Your task to perform on an android device: open app "YouTube Kids" Image 0: 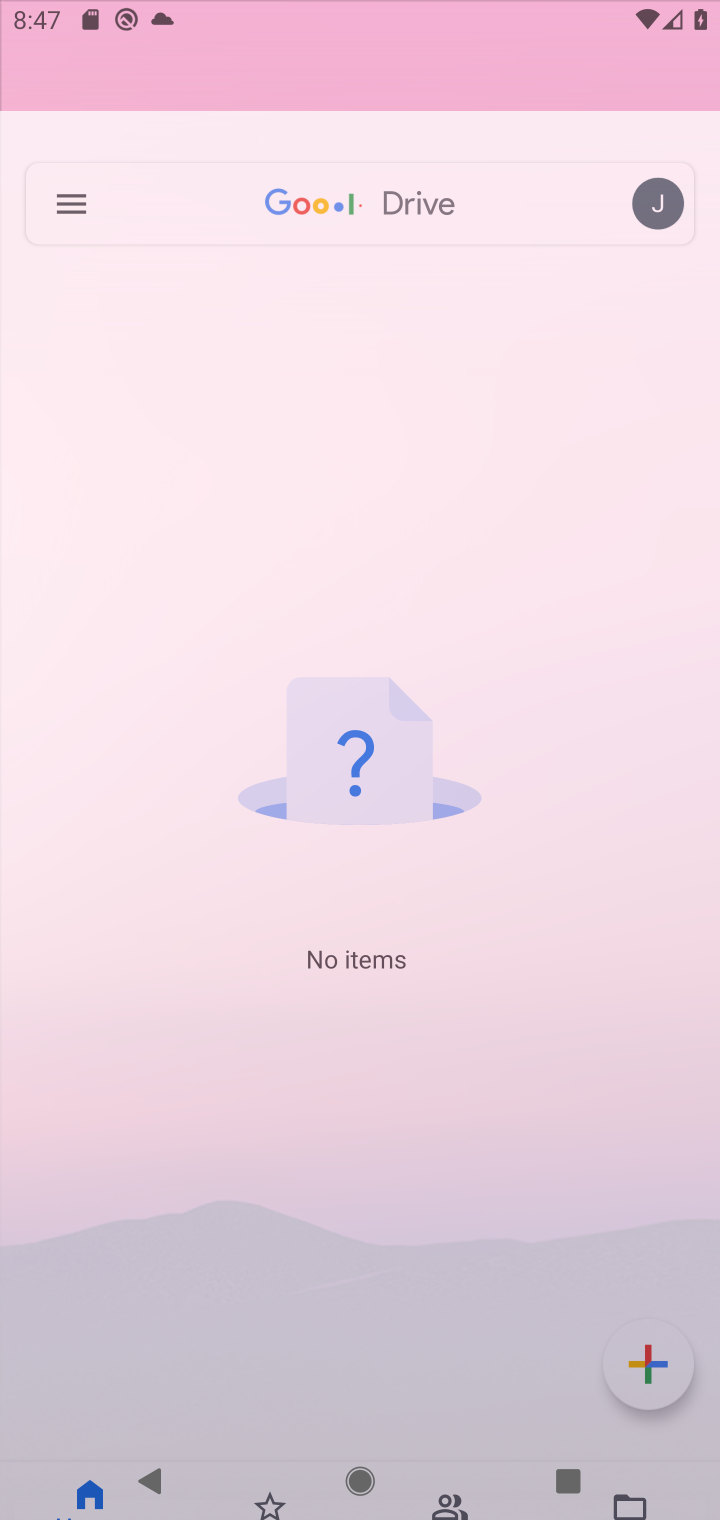
Step 0: click (569, 82)
Your task to perform on an android device: open app "YouTube Kids" Image 1: 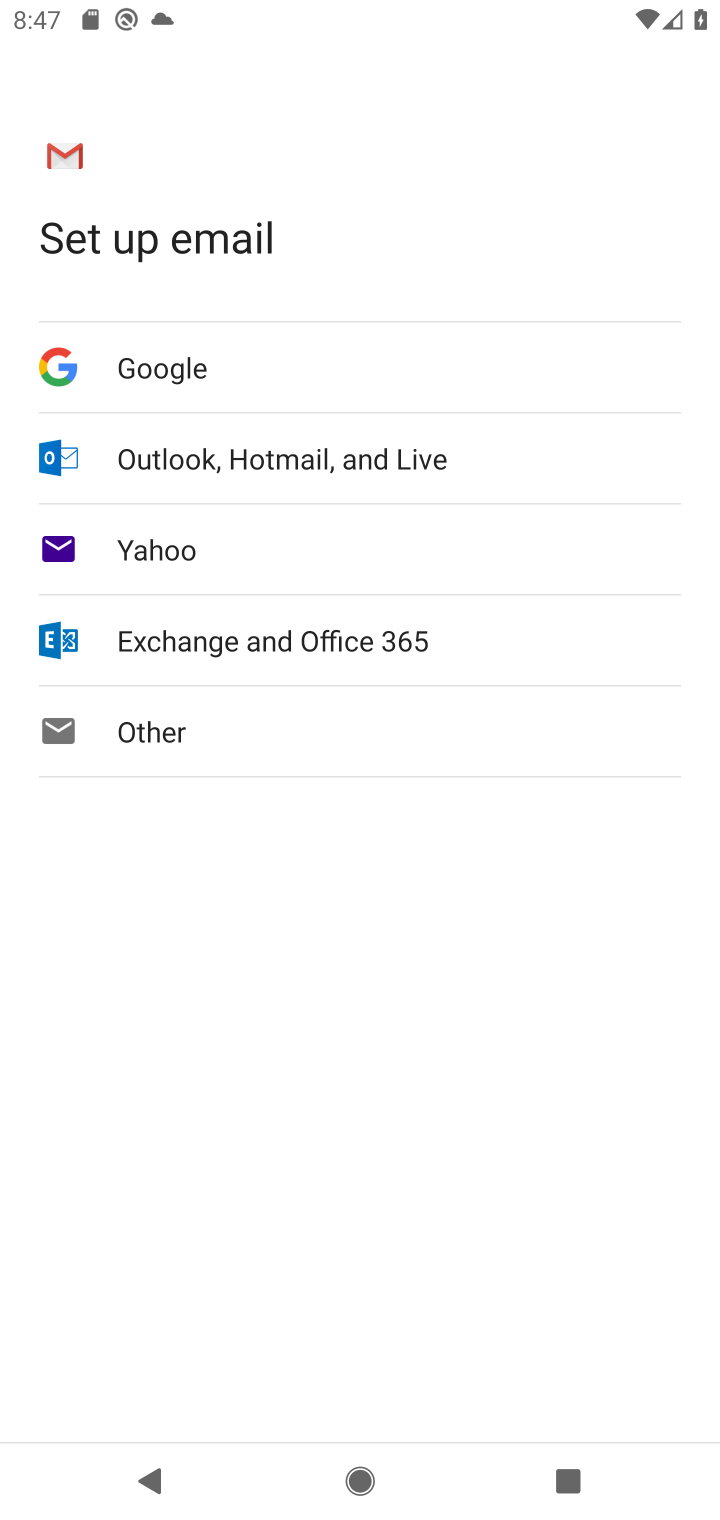
Step 1: press home button
Your task to perform on an android device: open app "YouTube Kids" Image 2: 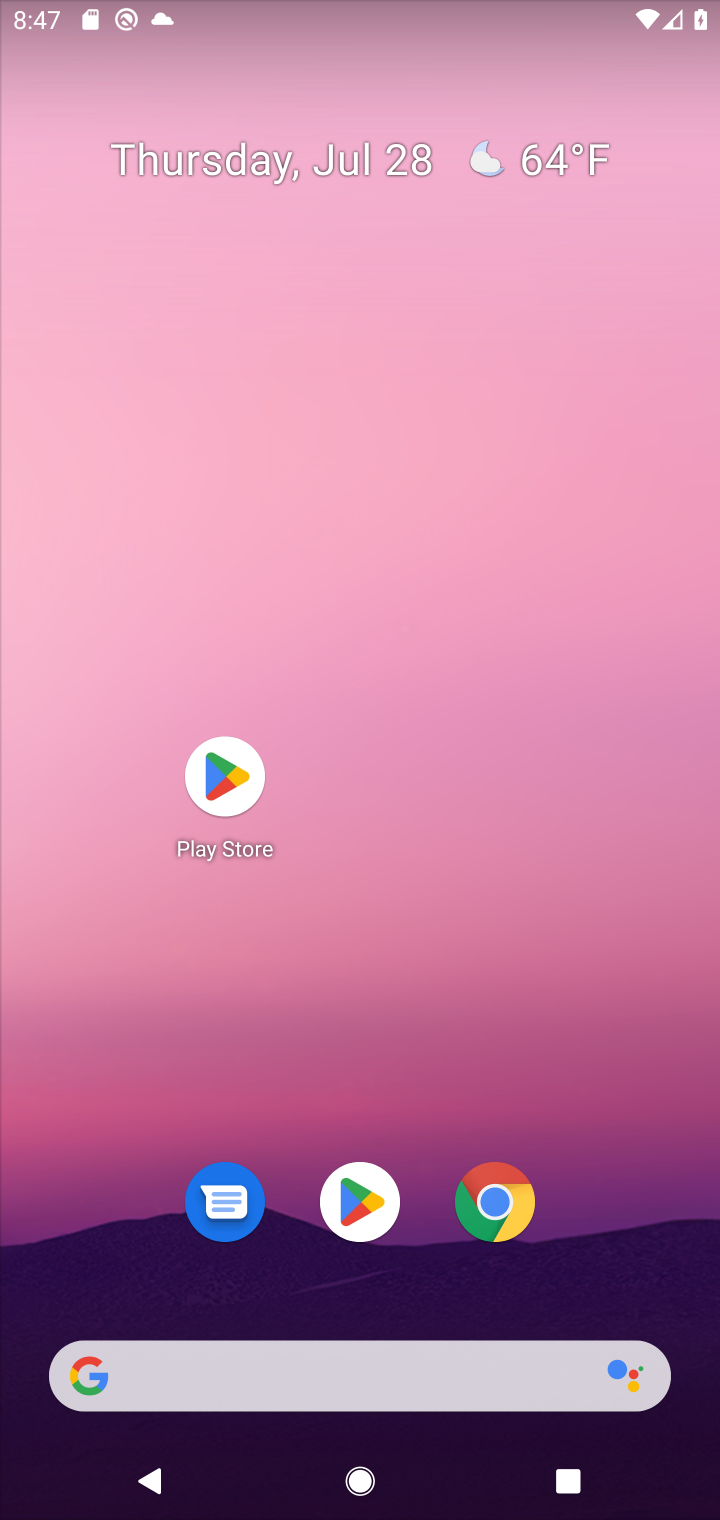
Step 2: click (213, 773)
Your task to perform on an android device: open app "YouTube Kids" Image 3: 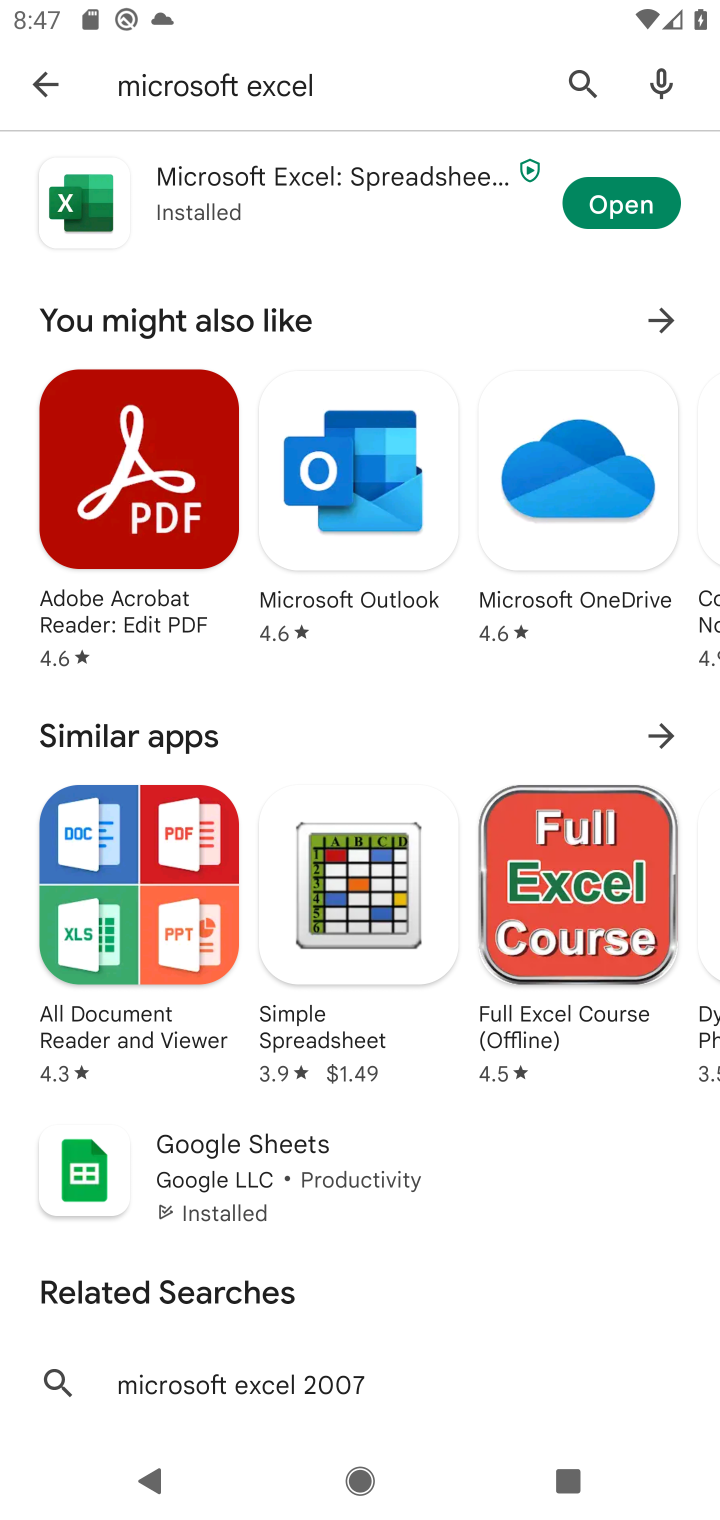
Step 3: click (583, 86)
Your task to perform on an android device: open app "YouTube Kids" Image 4: 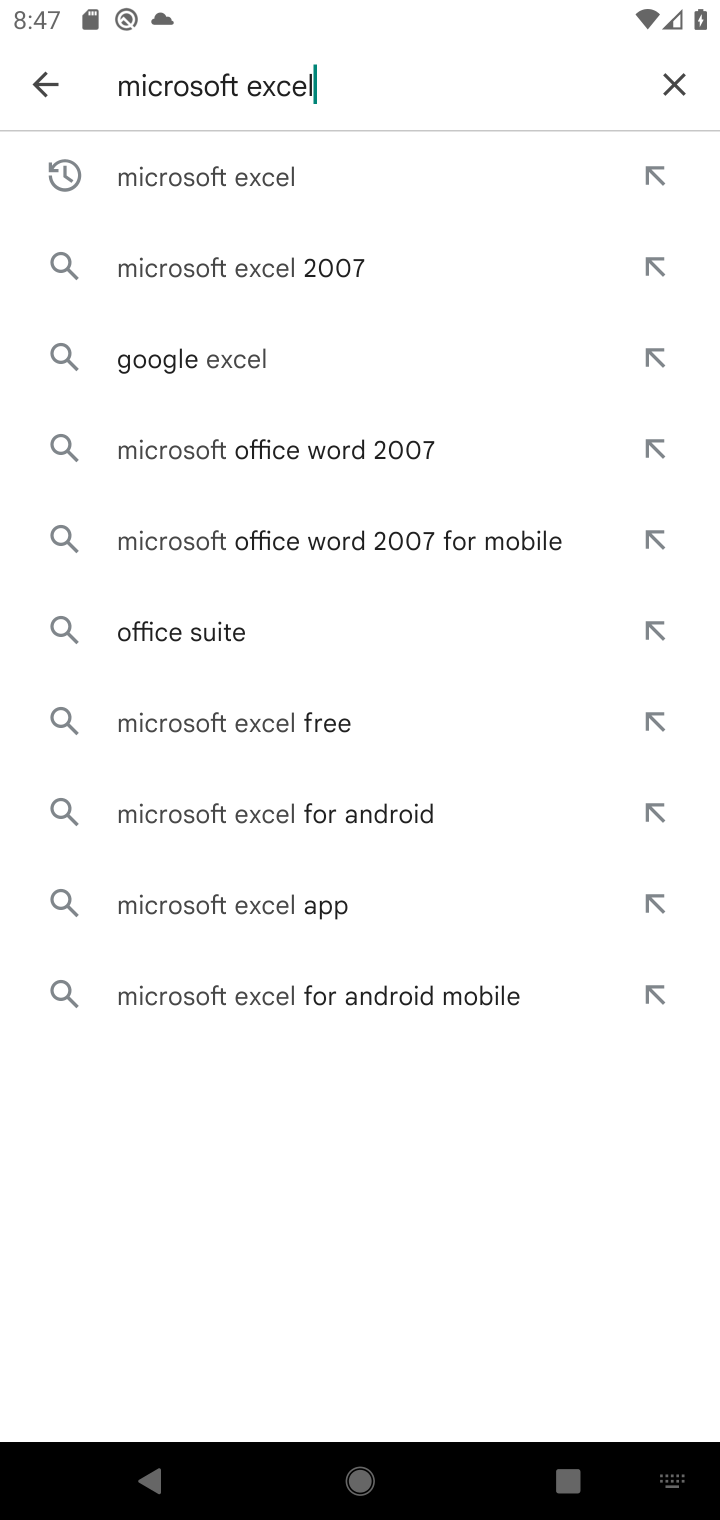
Step 4: click (661, 70)
Your task to perform on an android device: open app "YouTube Kids" Image 5: 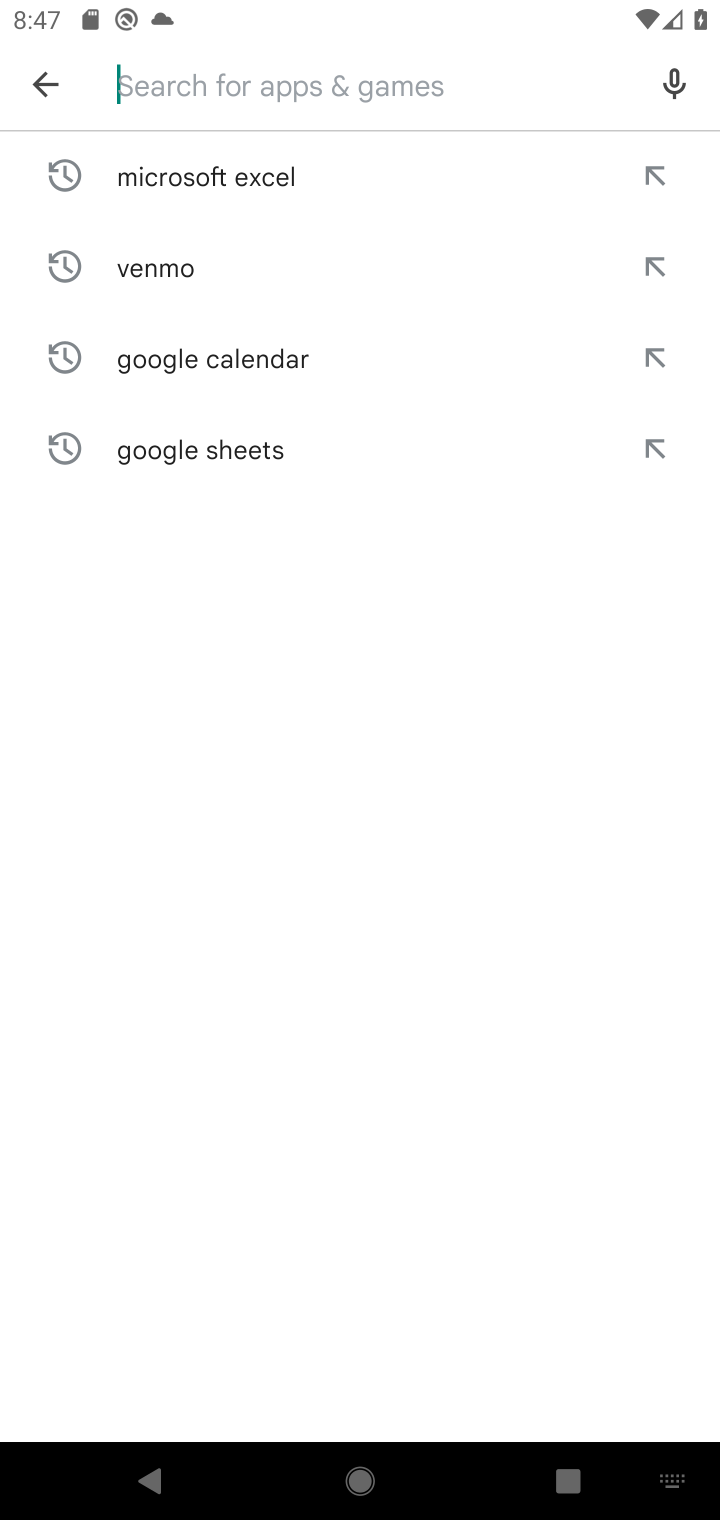
Step 5: type "youtube kids"
Your task to perform on an android device: open app "YouTube Kids" Image 6: 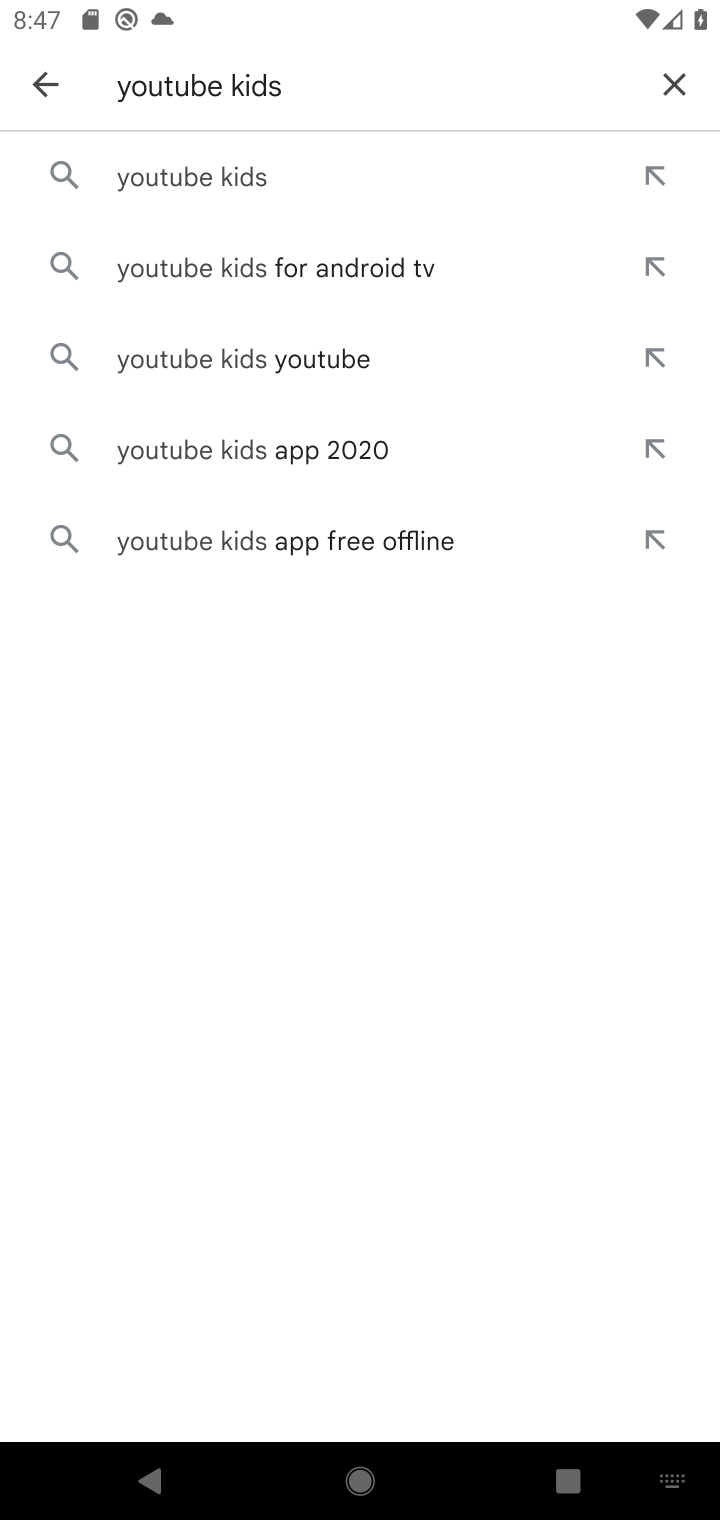
Step 6: click (232, 175)
Your task to perform on an android device: open app "YouTube Kids" Image 7: 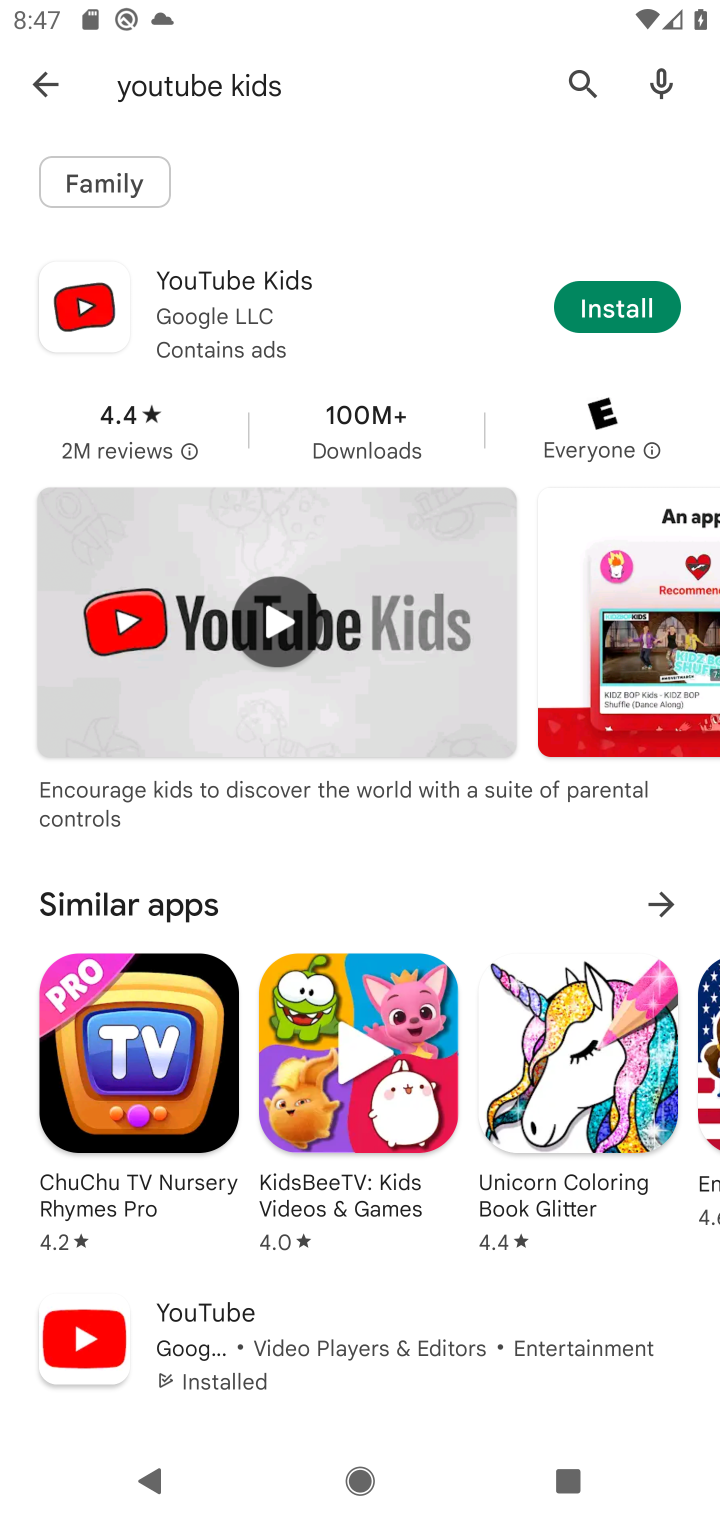
Step 7: task complete